Your task to perform on an android device: turn on translation in the chrome app Image 0: 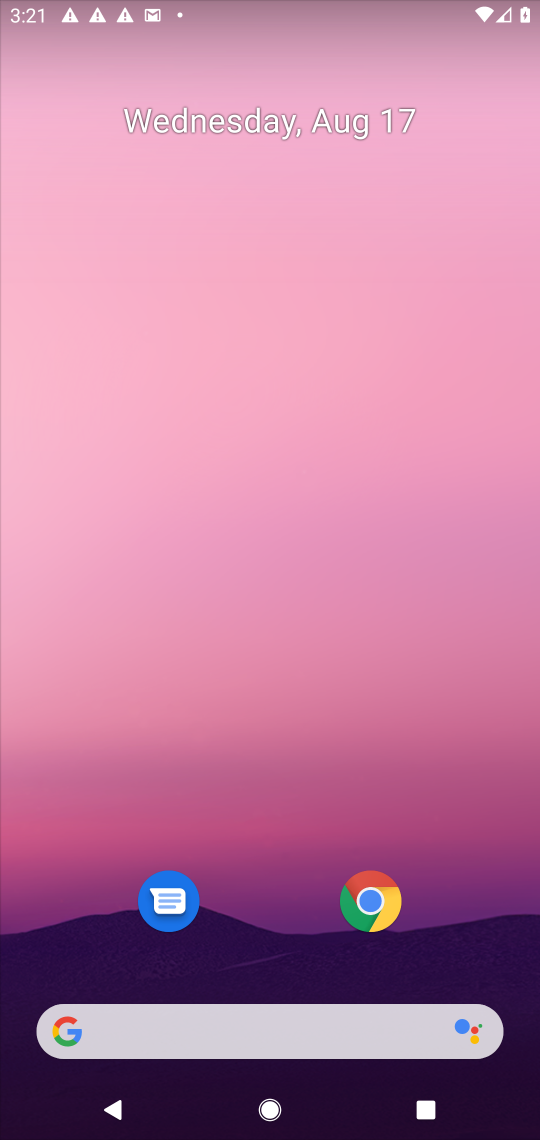
Step 0: click (342, 897)
Your task to perform on an android device: turn on translation in the chrome app Image 1: 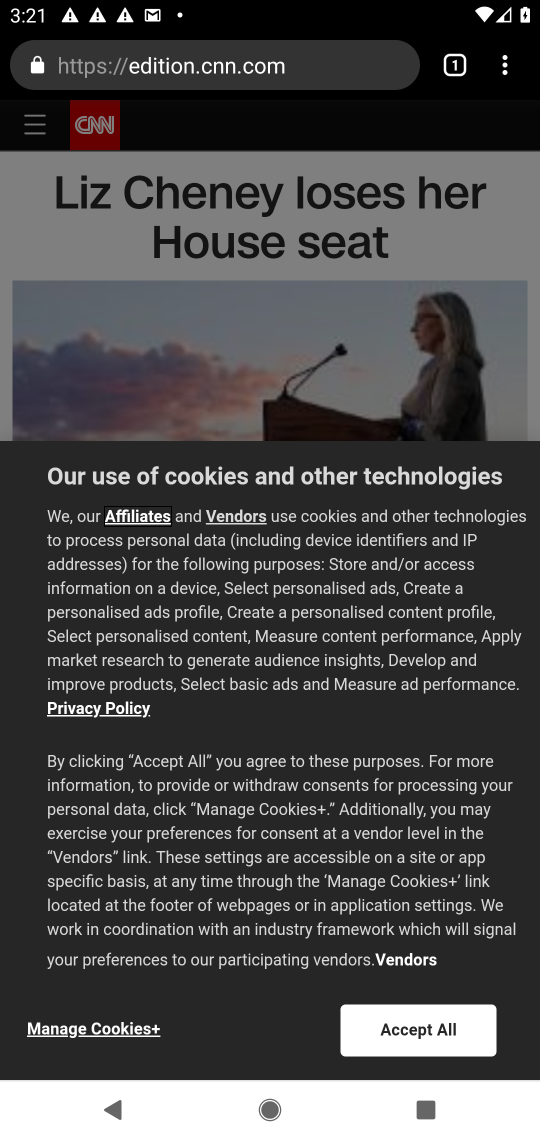
Step 1: click (504, 63)
Your task to perform on an android device: turn on translation in the chrome app Image 2: 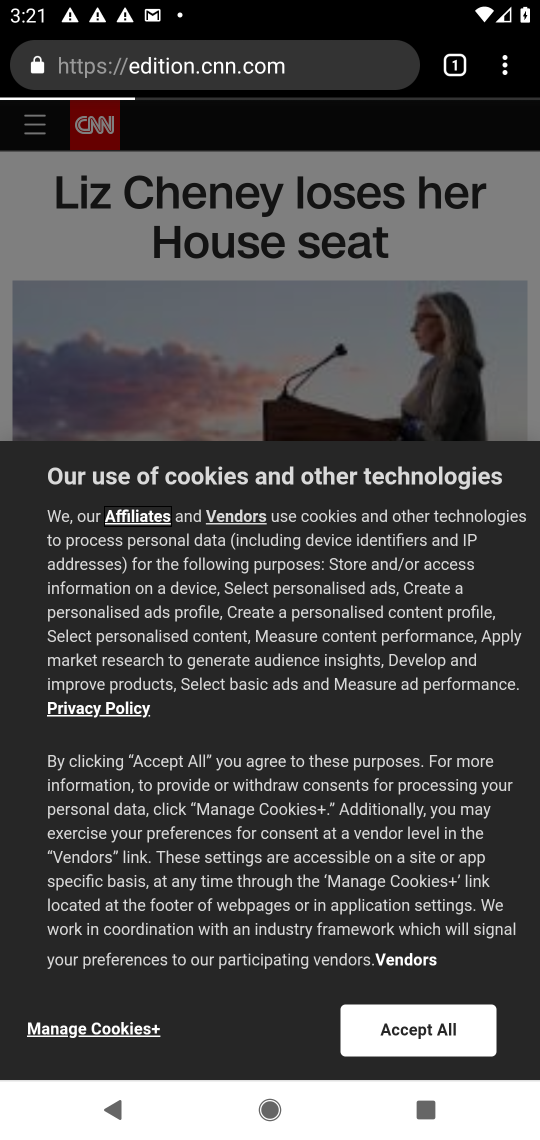
Step 2: click (500, 73)
Your task to perform on an android device: turn on translation in the chrome app Image 3: 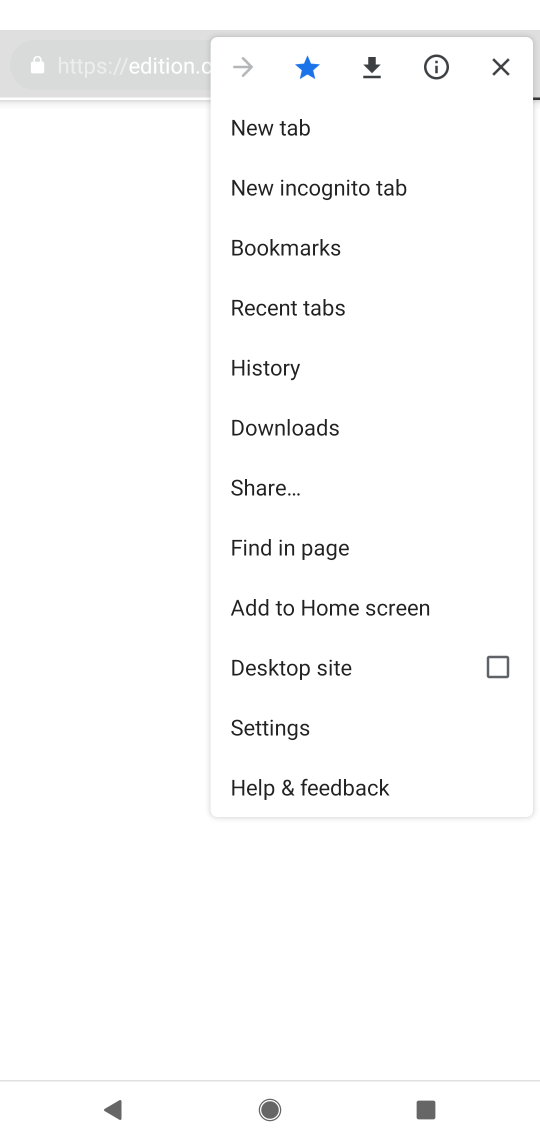
Step 3: click (237, 722)
Your task to perform on an android device: turn on translation in the chrome app Image 4: 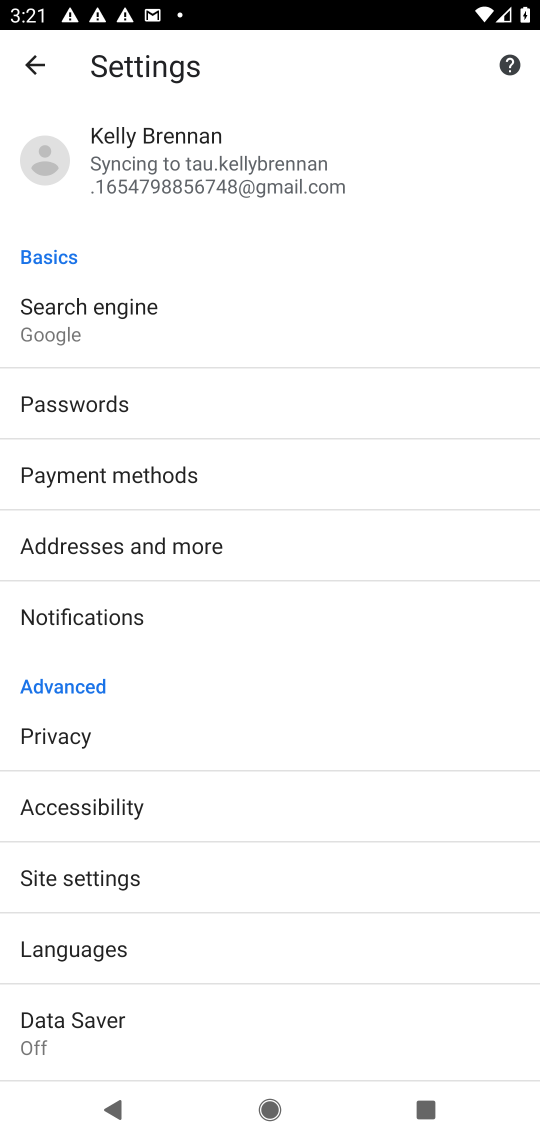
Step 4: click (61, 963)
Your task to perform on an android device: turn on translation in the chrome app Image 5: 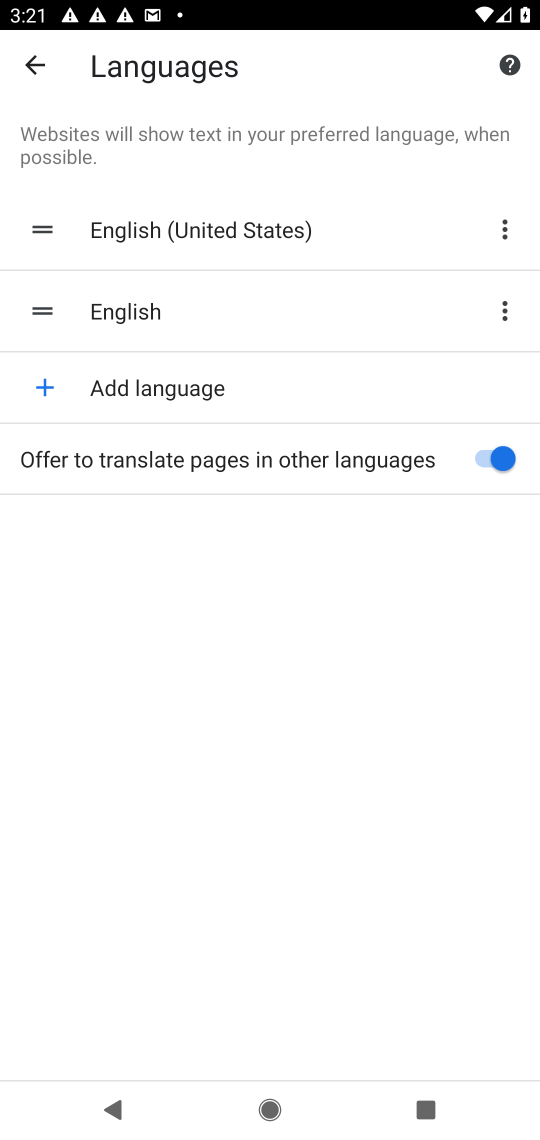
Step 5: task complete